Your task to perform on an android device: turn on translation in the chrome app Image 0: 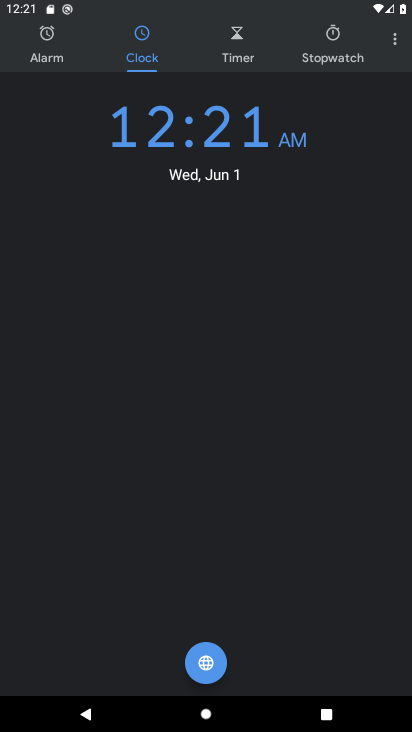
Step 0: press home button
Your task to perform on an android device: turn on translation in the chrome app Image 1: 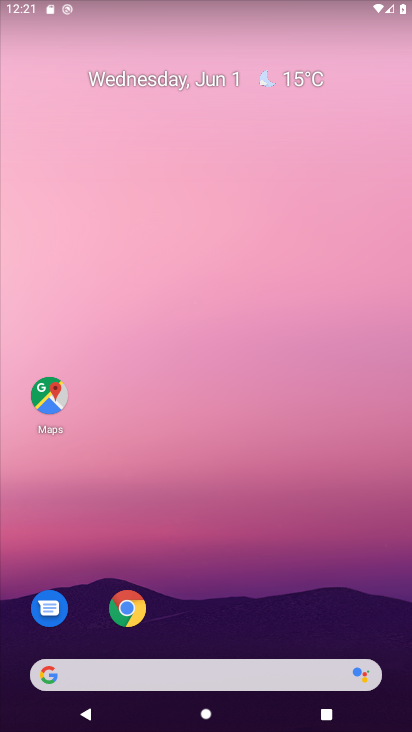
Step 1: click (120, 603)
Your task to perform on an android device: turn on translation in the chrome app Image 2: 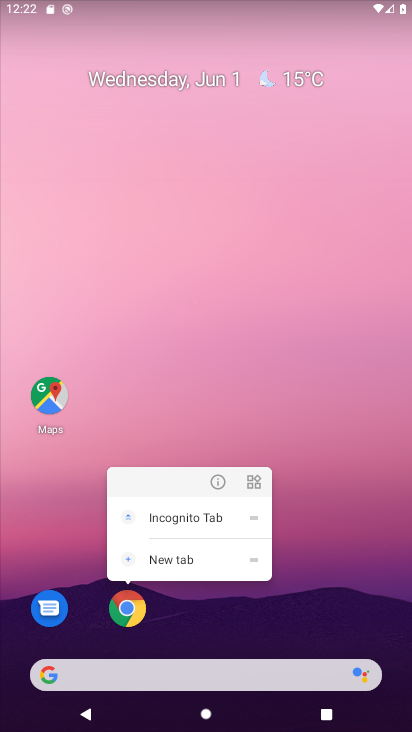
Step 2: click (128, 604)
Your task to perform on an android device: turn on translation in the chrome app Image 3: 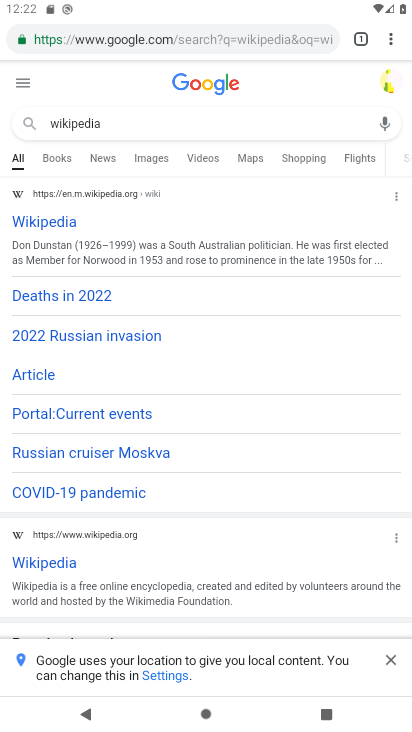
Step 3: click (388, 35)
Your task to perform on an android device: turn on translation in the chrome app Image 4: 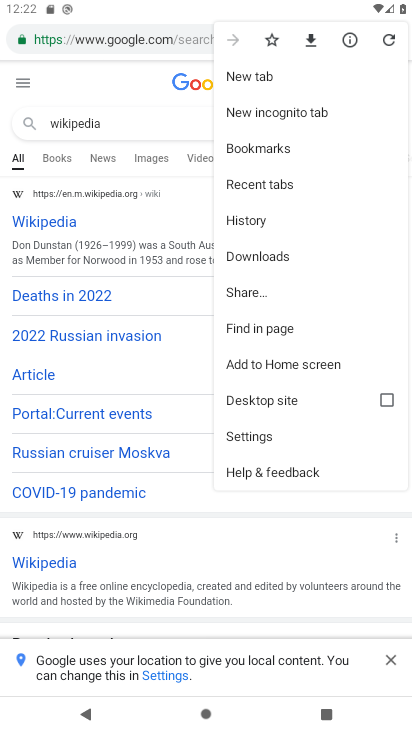
Step 4: click (257, 434)
Your task to perform on an android device: turn on translation in the chrome app Image 5: 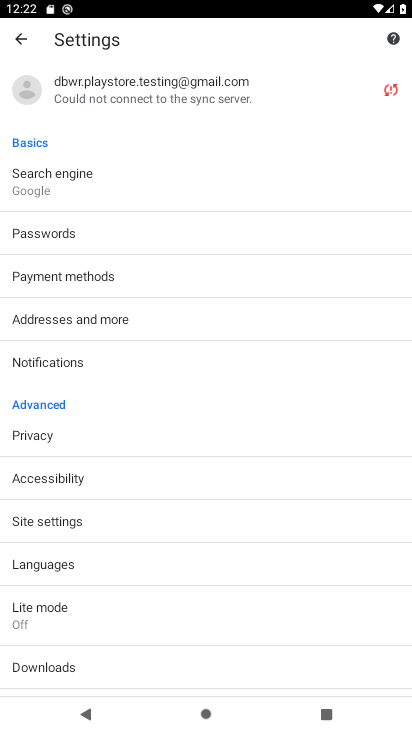
Step 5: click (65, 567)
Your task to perform on an android device: turn on translation in the chrome app Image 6: 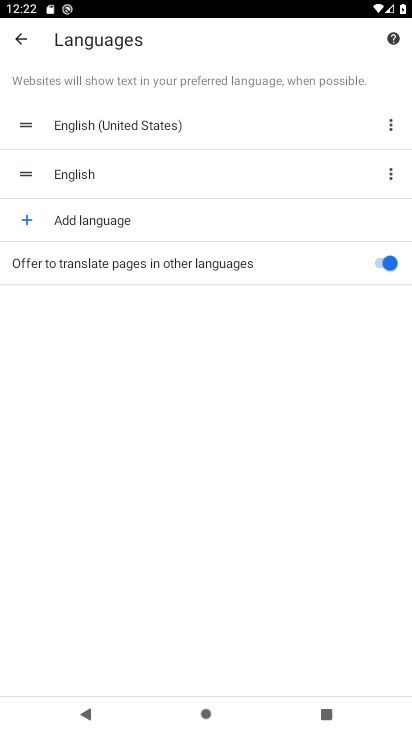
Step 6: task complete